Your task to perform on an android device: Open Google Maps Image 0: 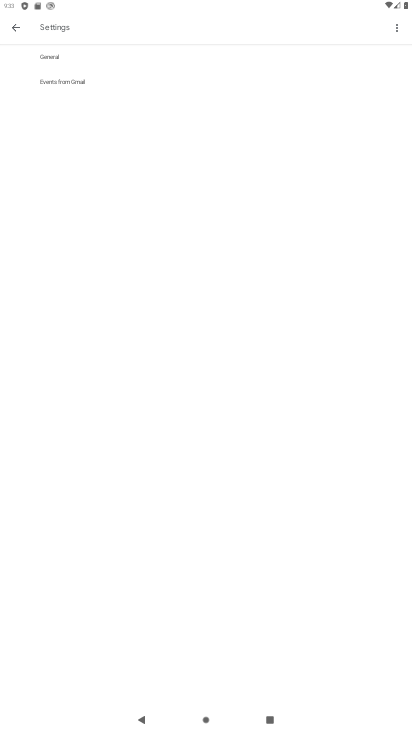
Step 0: press home button
Your task to perform on an android device: Open Google Maps Image 1: 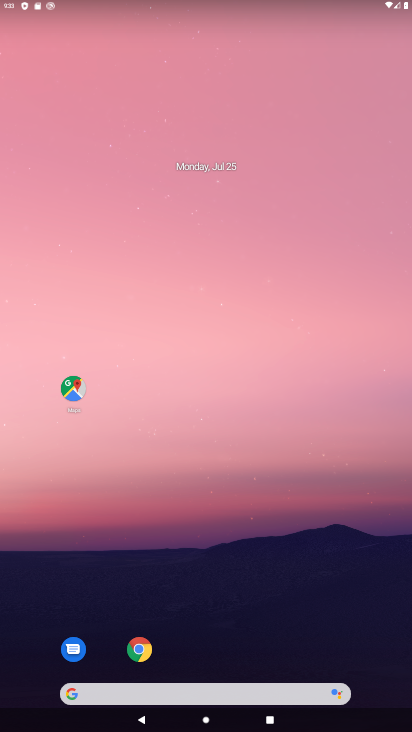
Step 1: click (80, 383)
Your task to perform on an android device: Open Google Maps Image 2: 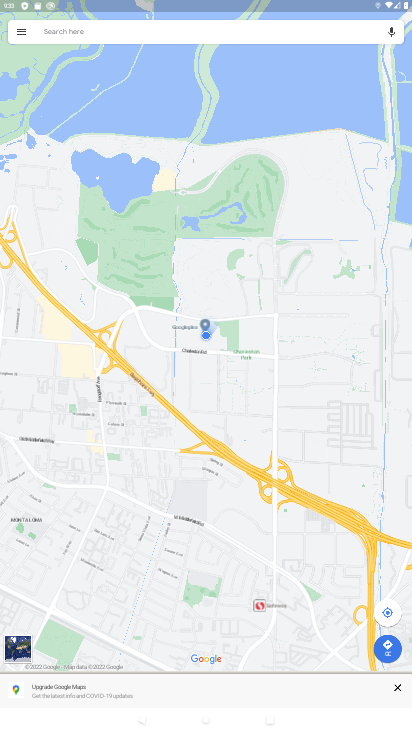
Step 2: task complete